Your task to perform on an android device: empty trash in the gmail app Image 0: 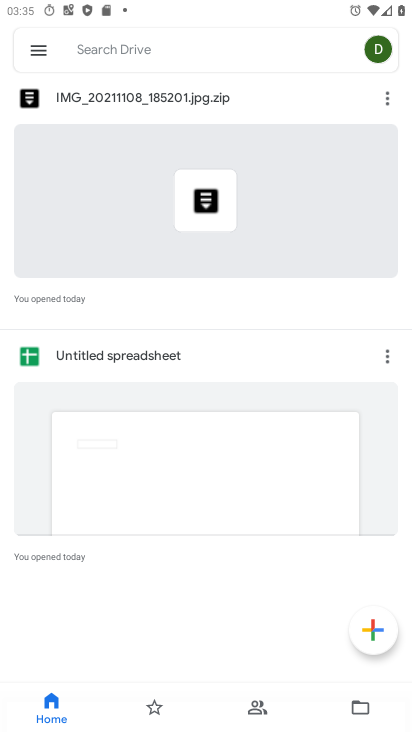
Step 0: press home button
Your task to perform on an android device: empty trash in the gmail app Image 1: 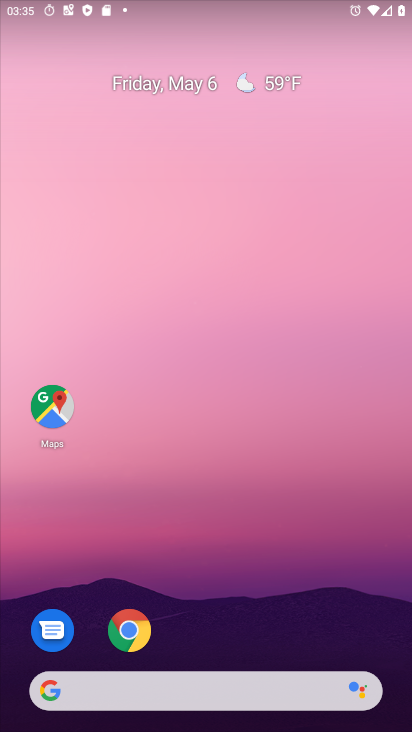
Step 1: drag from (201, 639) to (230, 280)
Your task to perform on an android device: empty trash in the gmail app Image 2: 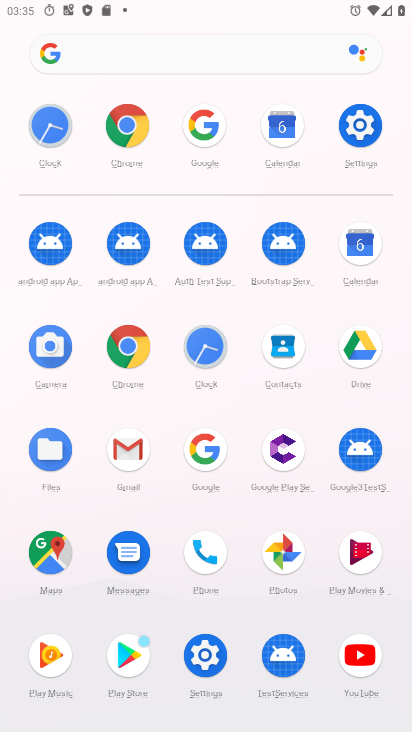
Step 2: click (117, 430)
Your task to perform on an android device: empty trash in the gmail app Image 3: 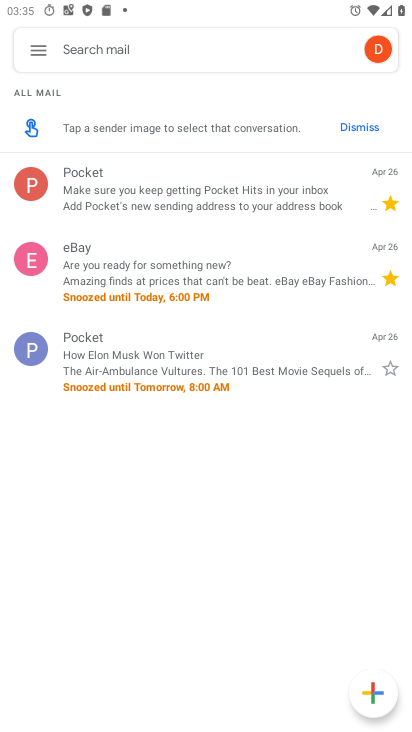
Step 3: click (48, 48)
Your task to perform on an android device: empty trash in the gmail app Image 4: 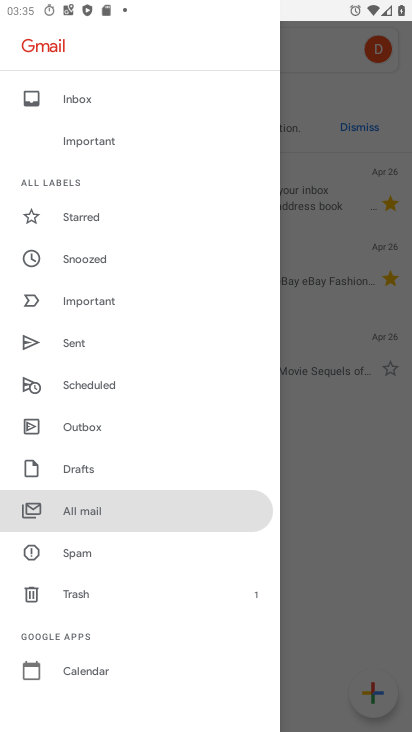
Step 4: click (106, 596)
Your task to perform on an android device: empty trash in the gmail app Image 5: 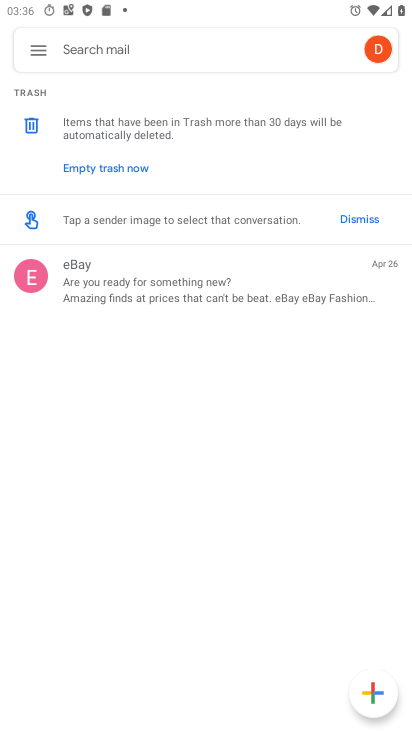
Step 5: click (138, 171)
Your task to perform on an android device: empty trash in the gmail app Image 6: 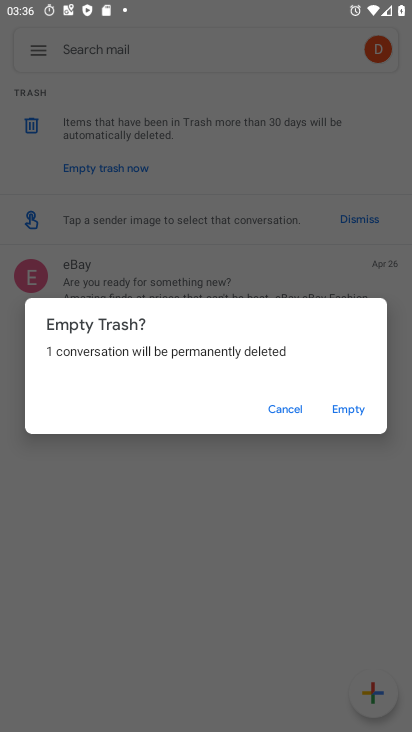
Step 6: click (344, 407)
Your task to perform on an android device: empty trash in the gmail app Image 7: 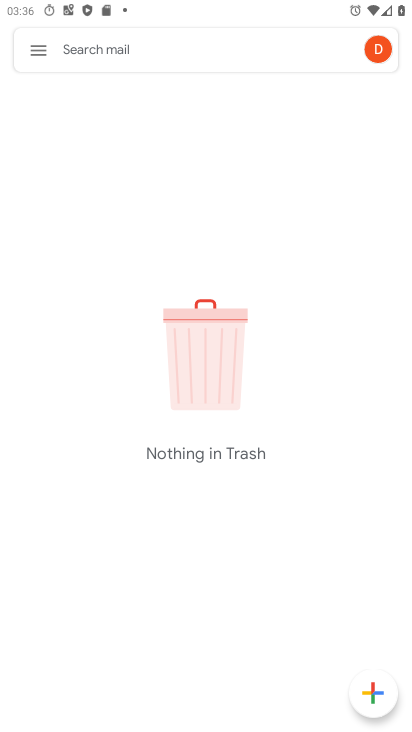
Step 7: task complete